Your task to perform on an android device: set the timer Image 0: 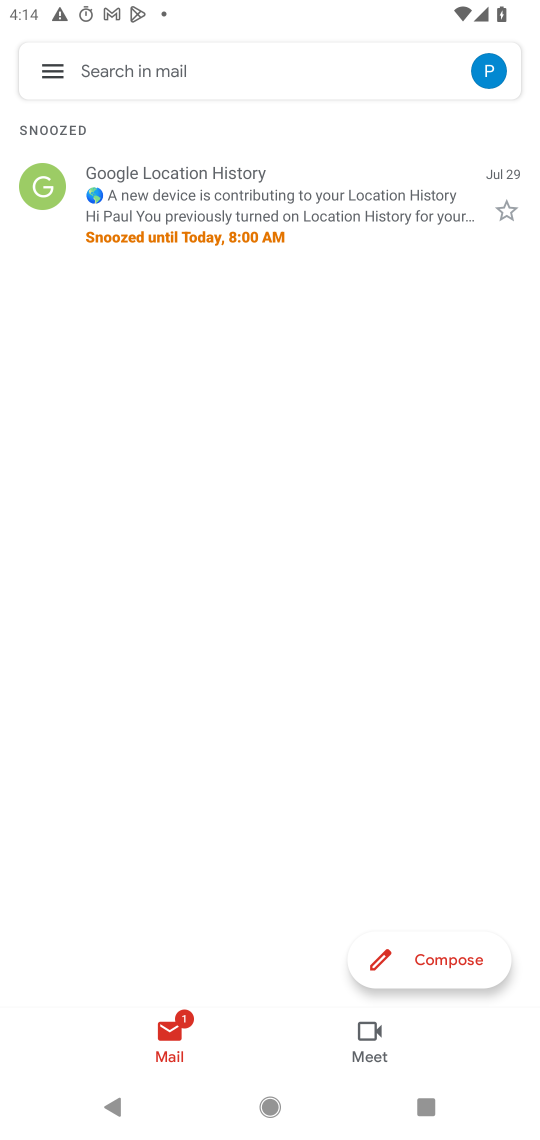
Step 0: press home button
Your task to perform on an android device: set the timer Image 1: 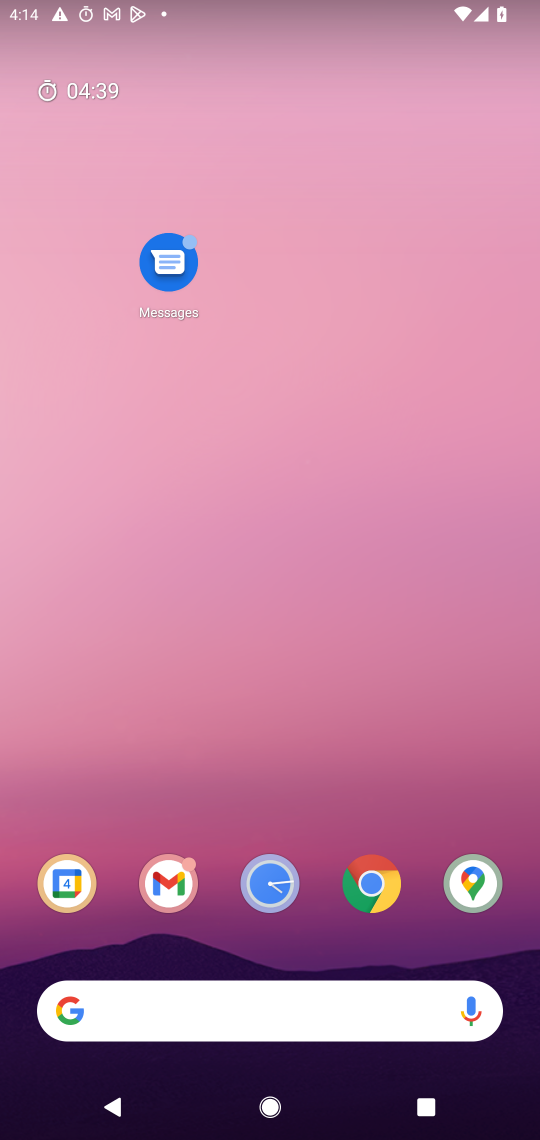
Step 1: drag from (294, 635) to (265, 74)
Your task to perform on an android device: set the timer Image 2: 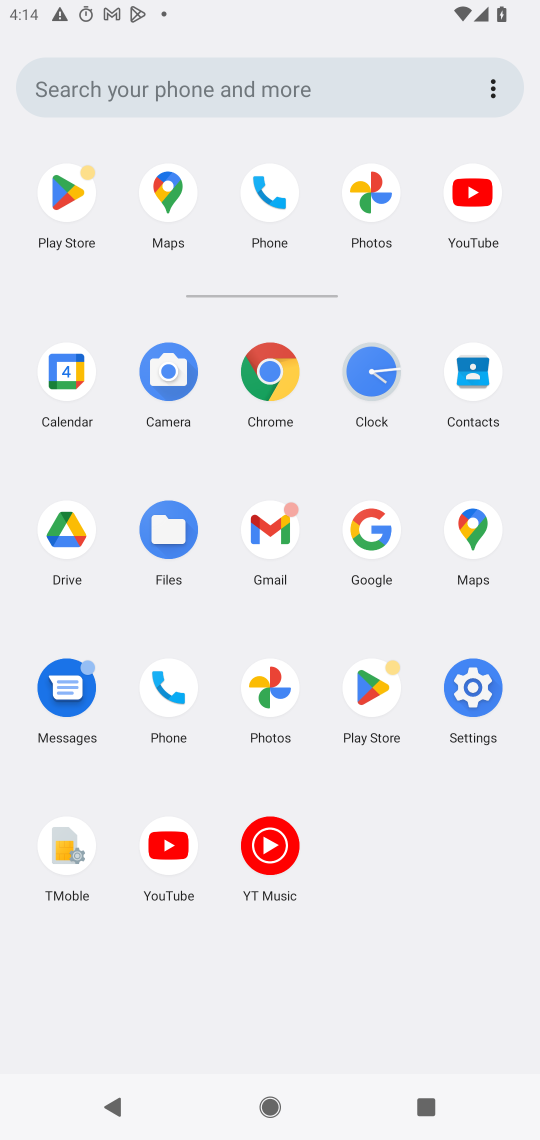
Step 2: click (367, 368)
Your task to perform on an android device: set the timer Image 3: 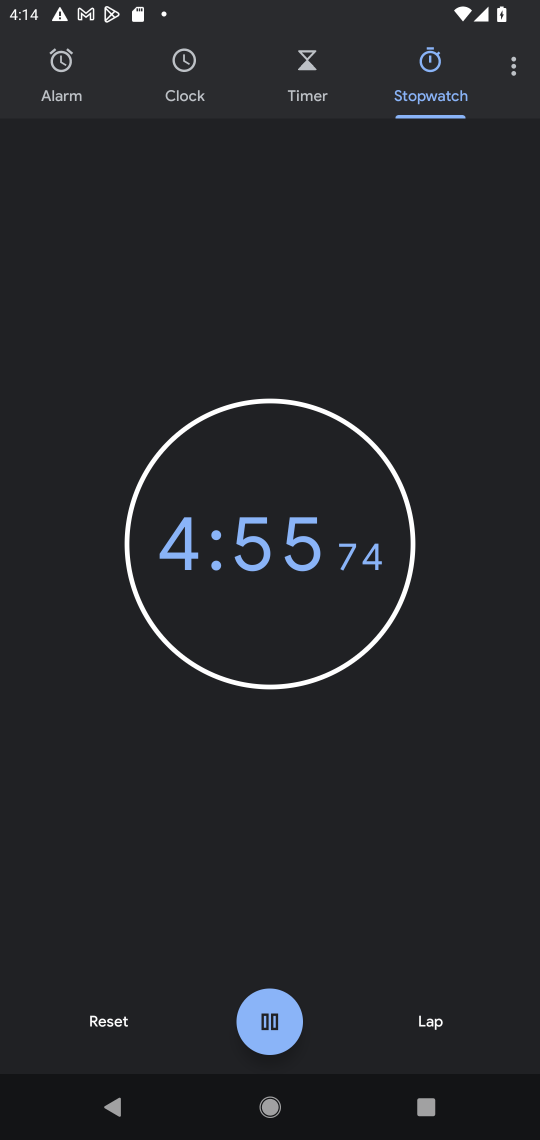
Step 3: click (316, 76)
Your task to perform on an android device: set the timer Image 4: 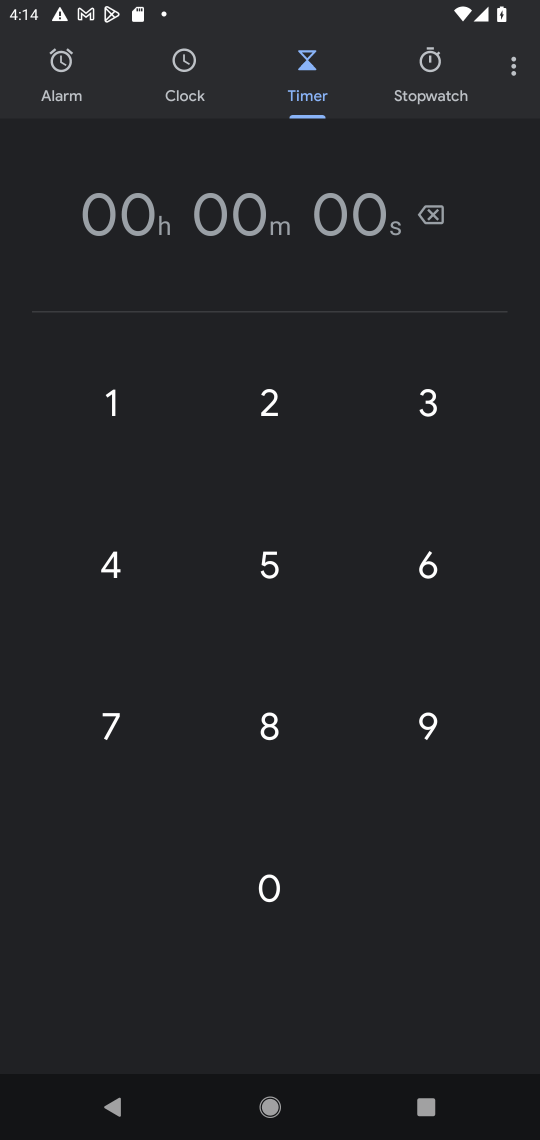
Step 4: click (273, 723)
Your task to perform on an android device: set the timer Image 5: 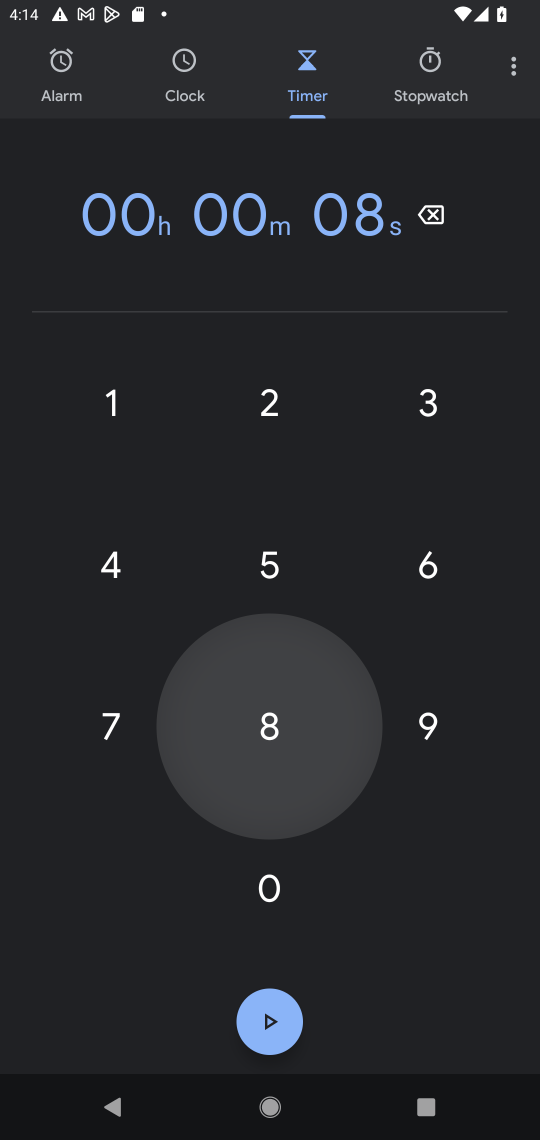
Step 5: click (273, 887)
Your task to perform on an android device: set the timer Image 6: 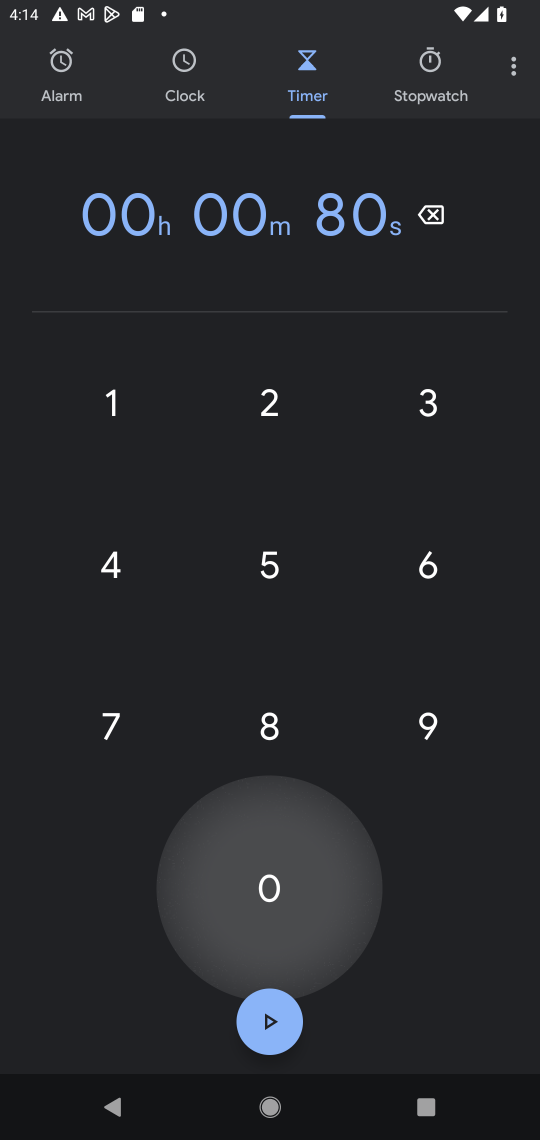
Step 6: click (427, 714)
Your task to perform on an android device: set the timer Image 7: 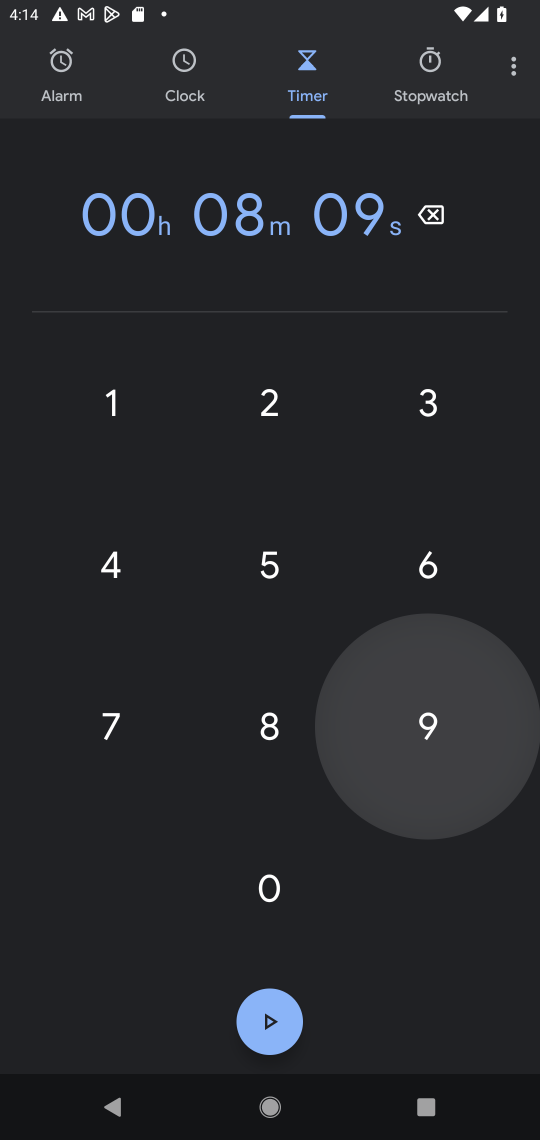
Step 7: click (421, 564)
Your task to perform on an android device: set the timer Image 8: 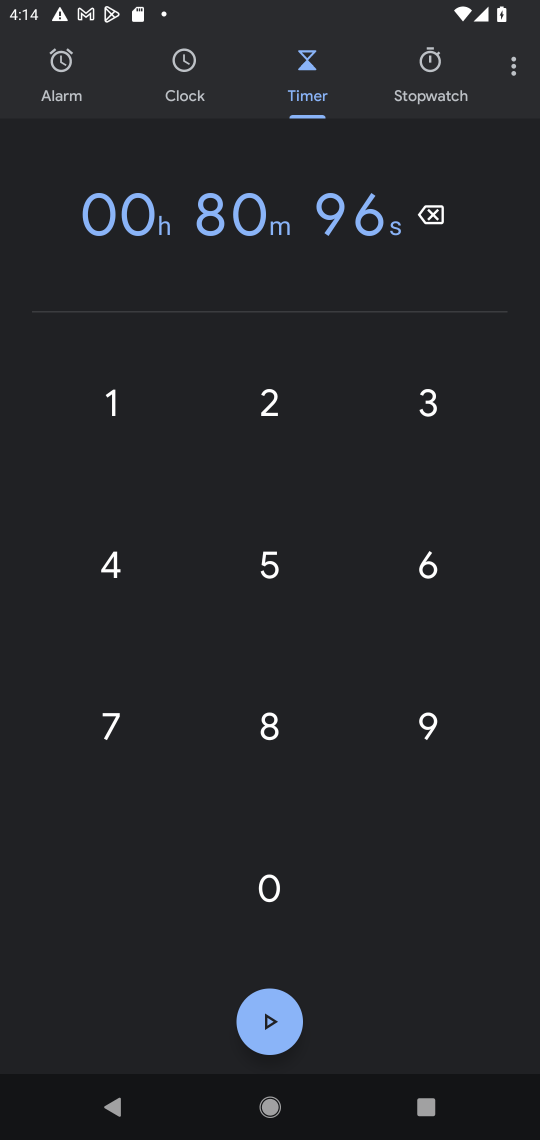
Step 8: click (265, 1020)
Your task to perform on an android device: set the timer Image 9: 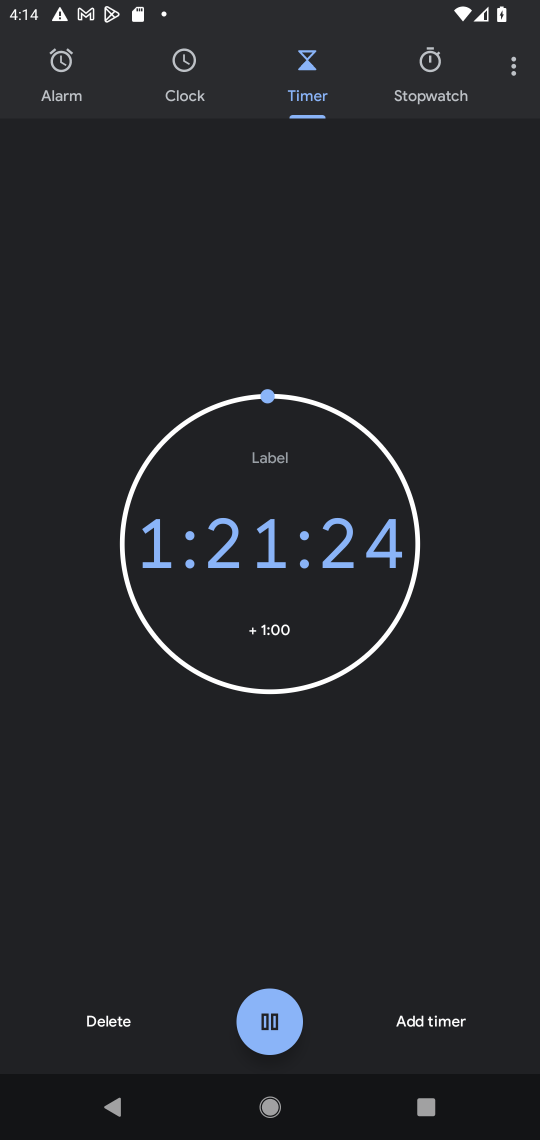
Step 9: task complete